Your task to perform on an android device: Go to display settings Image 0: 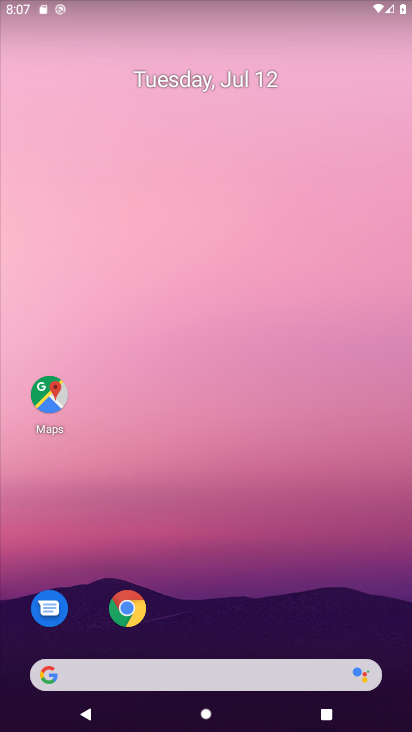
Step 0: drag from (198, 659) to (313, 70)
Your task to perform on an android device: Go to display settings Image 1: 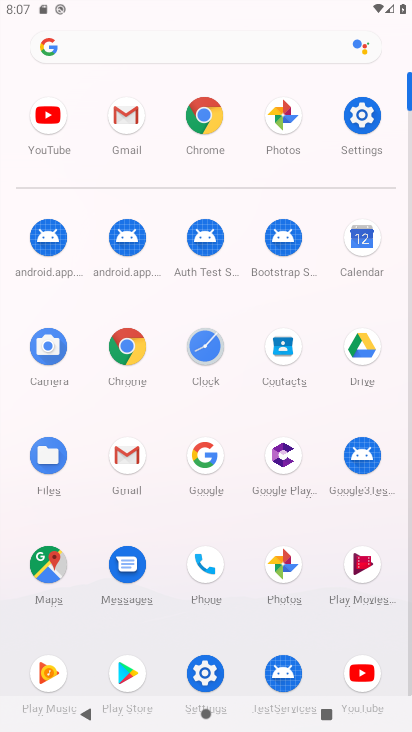
Step 1: click (362, 109)
Your task to perform on an android device: Go to display settings Image 2: 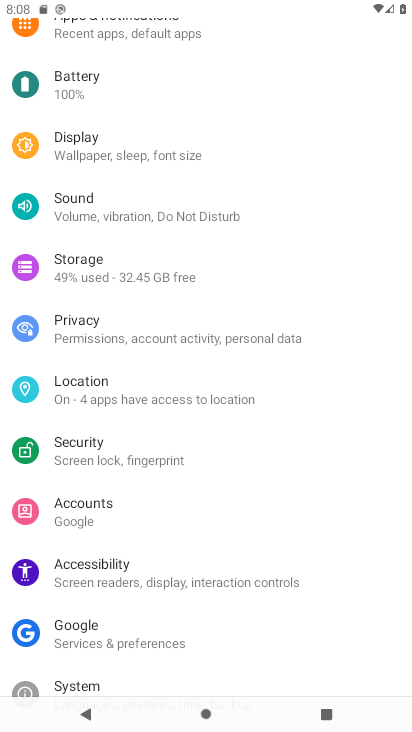
Step 2: click (101, 147)
Your task to perform on an android device: Go to display settings Image 3: 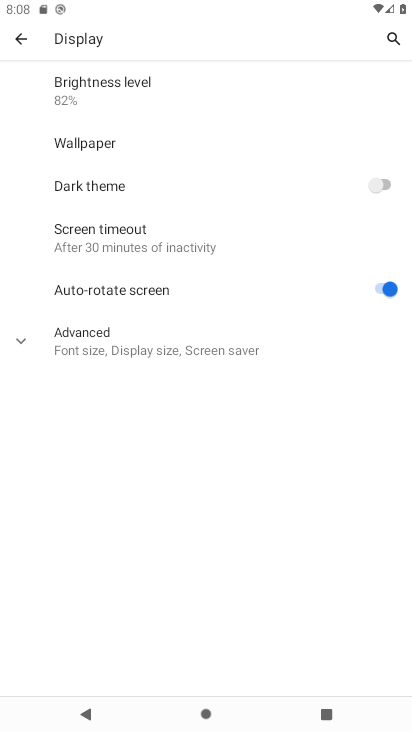
Step 3: task complete